Your task to perform on an android device: Open my contact list Image 0: 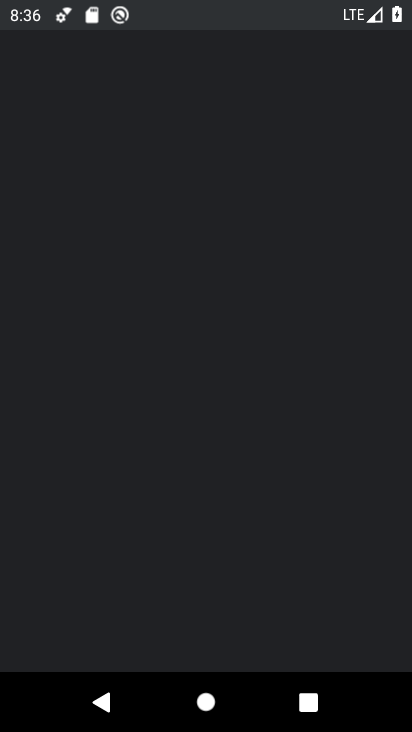
Step 0: drag from (332, 399) to (297, 143)
Your task to perform on an android device: Open my contact list Image 1: 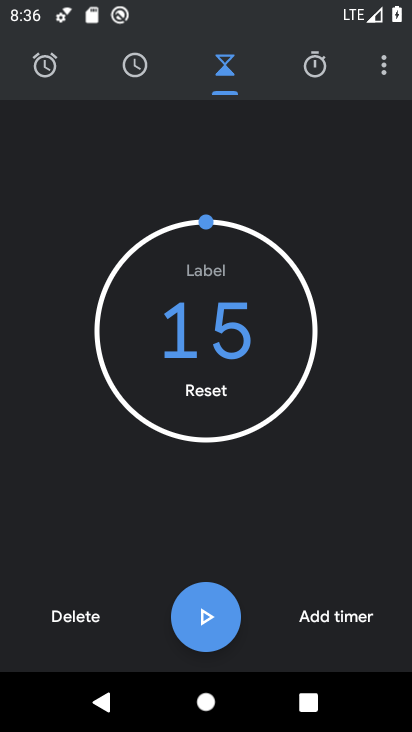
Step 1: press home button
Your task to perform on an android device: Open my contact list Image 2: 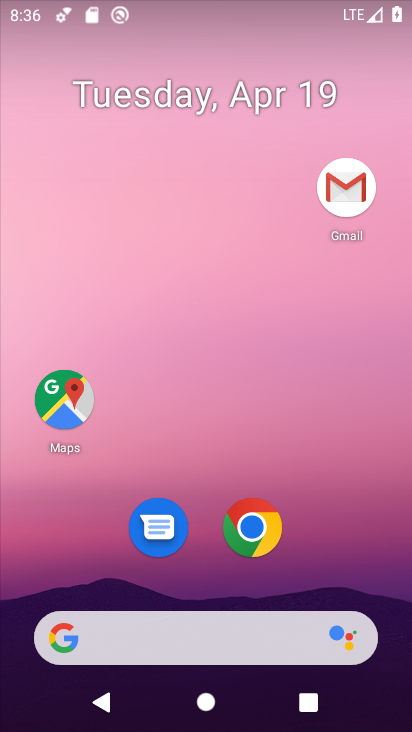
Step 2: drag from (372, 557) to (327, 22)
Your task to perform on an android device: Open my contact list Image 3: 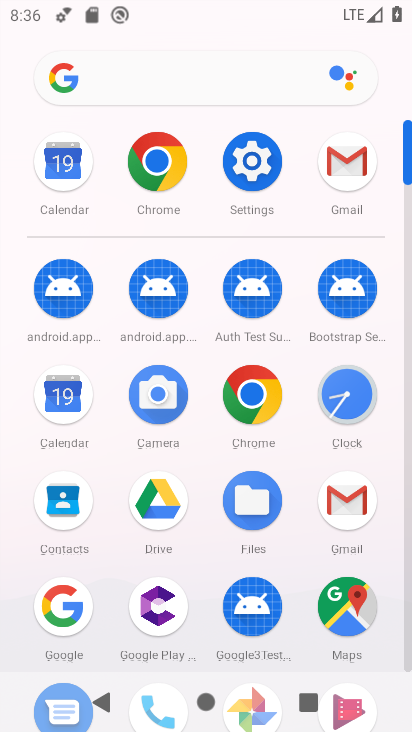
Step 3: click (69, 501)
Your task to perform on an android device: Open my contact list Image 4: 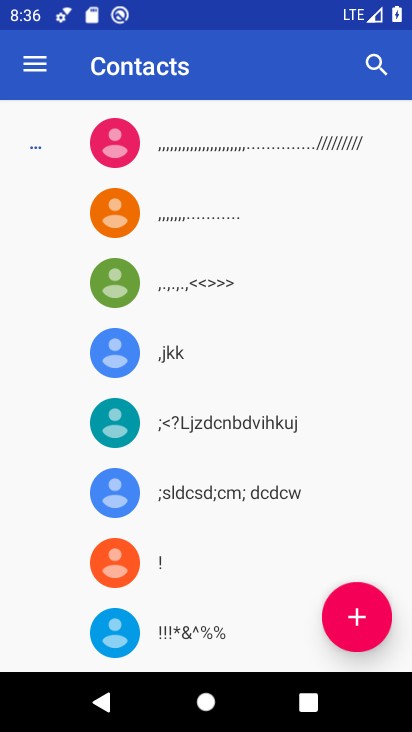
Step 4: task complete